Your task to perform on an android device: turn pop-ups on in chrome Image 0: 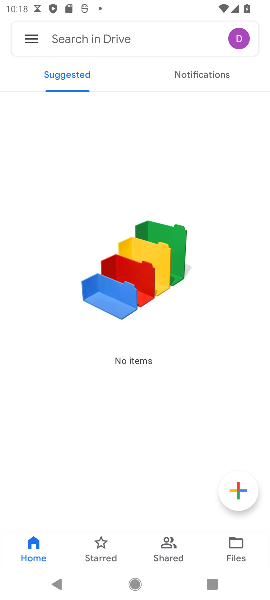
Step 0: press home button
Your task to perform on an android device: turn pop-ups on in chrome Image 1: 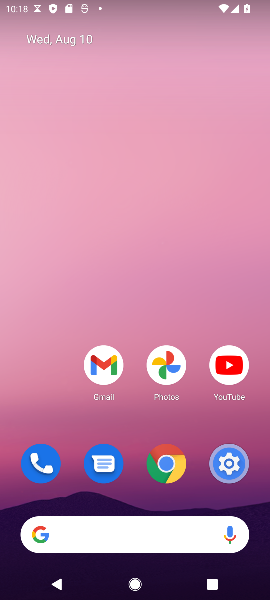
Step 1: click (157, 466)
Your task to perform on an android device: turn pop-ups on in chrome Image 2: 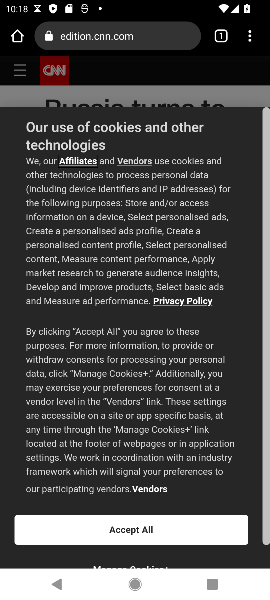
Step 2: click (250, 41)
Your task to perform on an android device: turn pop-ups on in chrome Image 3: 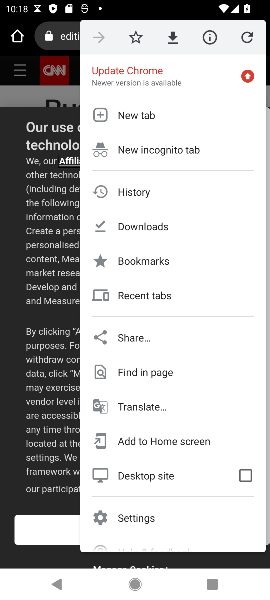
Step 3: click (137, 522)
Your task to perform on an android device: turn pop-ups on in chrome Image 4: 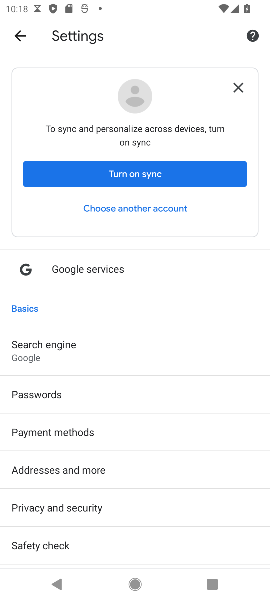
Step 4: drag from (162, 522) to (172, 259)
Your task to perform on an android device: turn pop-ups on in chrome Image 5: 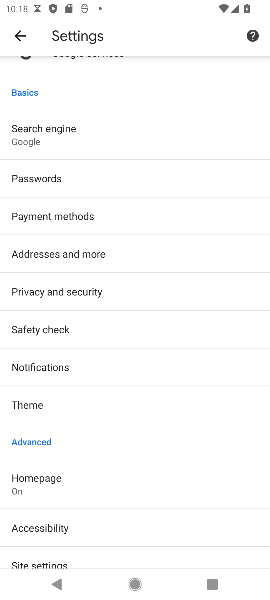
Step 5: drag from (158, 441) to (159, 151)
Your task to perform on an android device: turn pop-ups on in chrome Image 6: 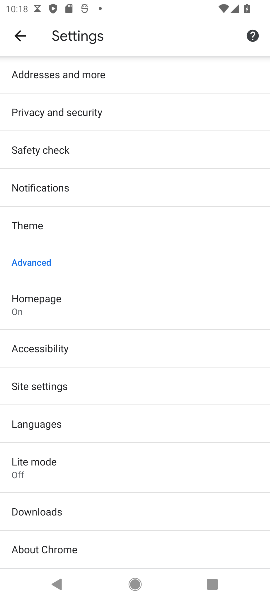
Step 6: click (29, 387)
Your task to perform on an android device: turn pop-ups on in chrome Image 7: 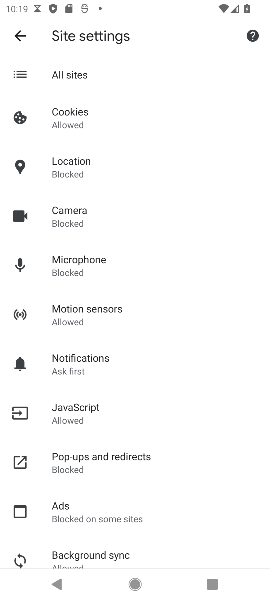
Step 7: drag from (202, 484) to (203, 217)
Your task to perform on an android device: turn pop-ups on in chrome Image 8: 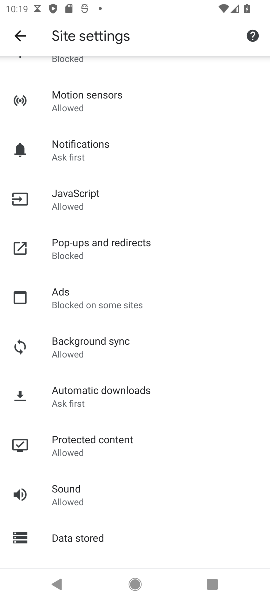
Step 8: drag from (204, 480) to (205, 165)
Your task to perform on an android device: turn pop-ups on in chrome Image 9: 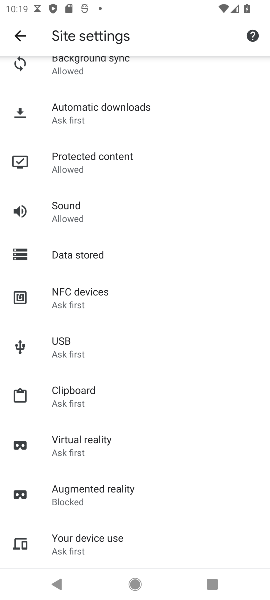
Step 9: drag from (196, 497) to (211, 273)
Your task to perform on an android device: turn pop-ups on in chrome Image 10: 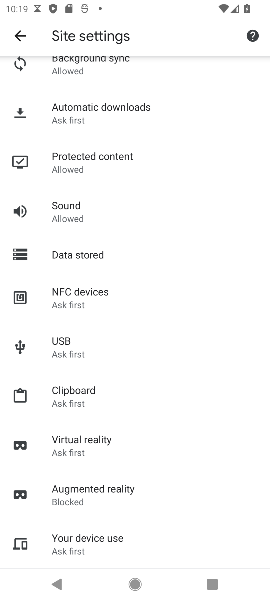
Step 10: drag from (188, 65) to (236, 464)
Your task to perform on an android device: turn pop-ups on in chrome Image 11: 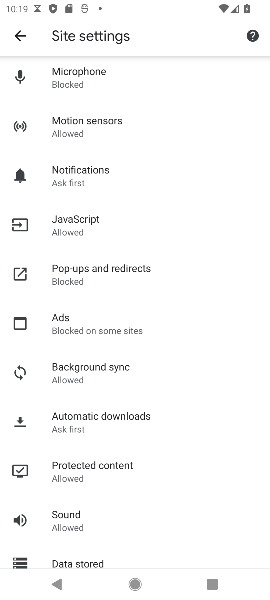
Step 11: click (88, 280)
Your task to perform on an android device: turn pop-ups on in chrome Image 12: 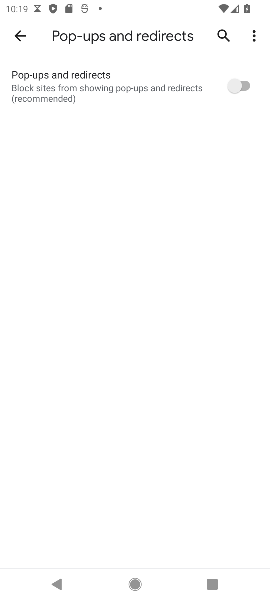
Step 12: click (239, 88)
Your task to perform on an android device: turn pop-ups on in chrome Image 13: 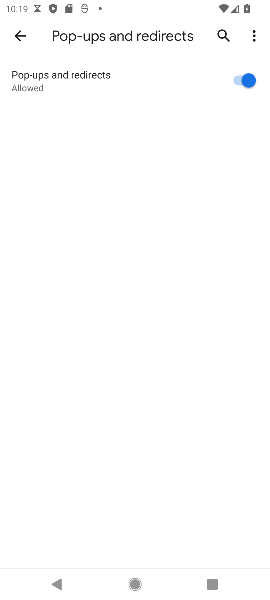
Step 13: task complete